Your task to perform on an android device: uninstall "PUBG MOBILE" Image 0: 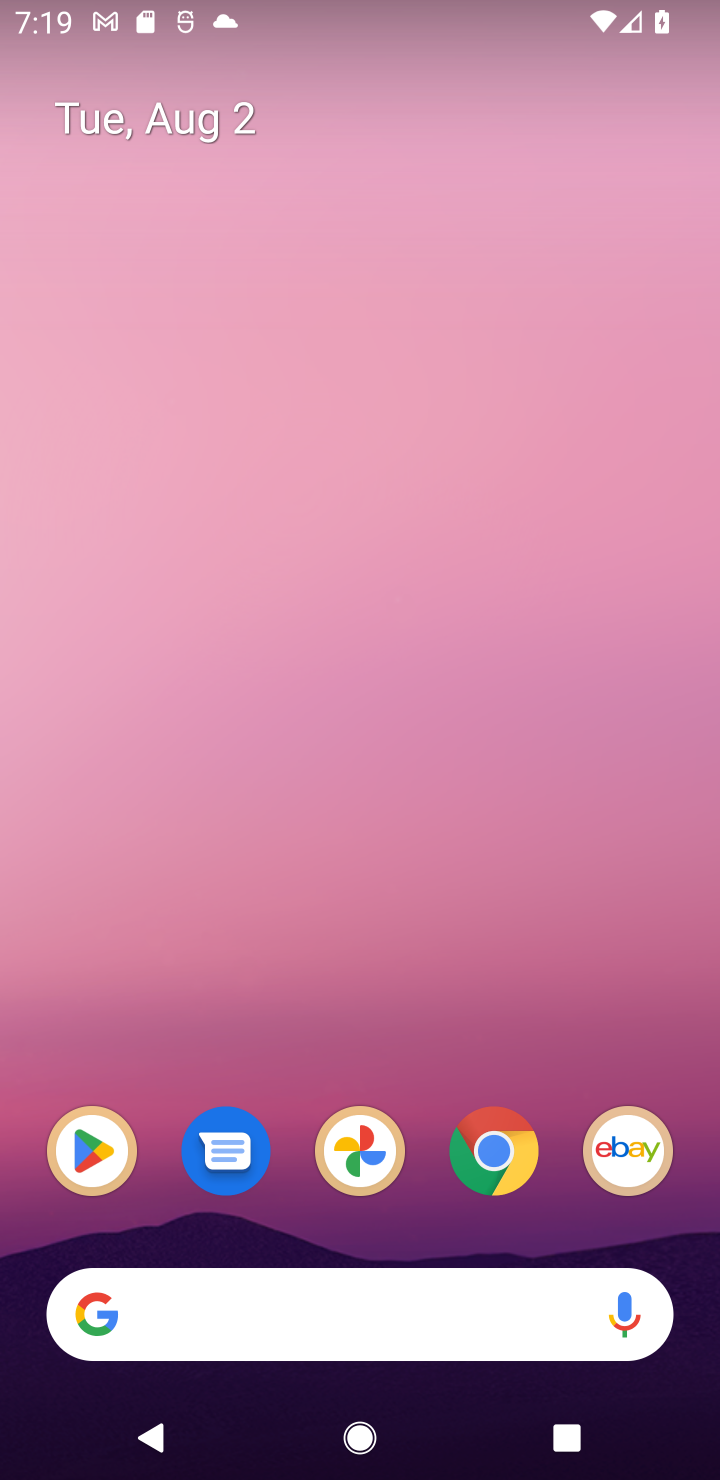
Step 0: click (104, 1150)
Your task to perform on an android device: uninstall "PUBG MOBILE" Image 1: 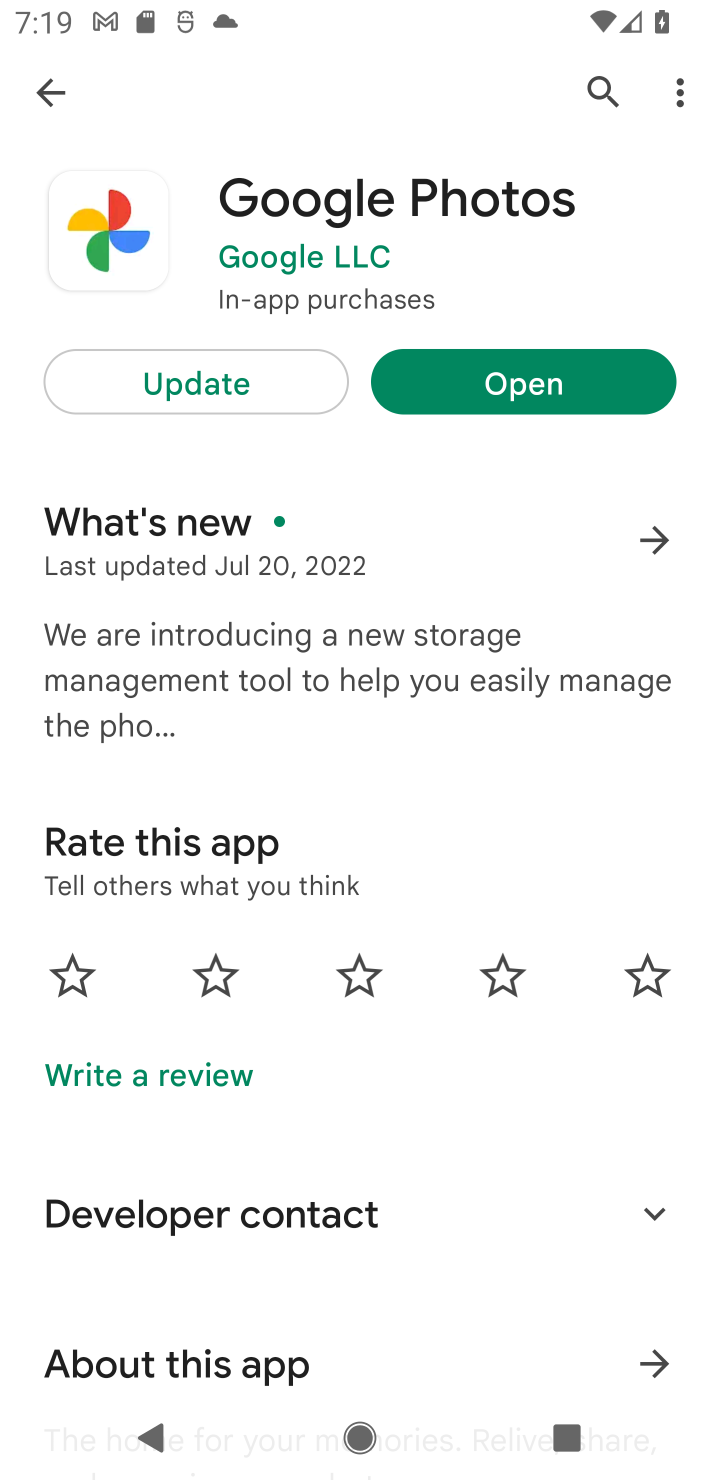
Step 1: click (610, 87)
Your task to perform on an android device: uninstall "PUBG MOBILE" Image 2: 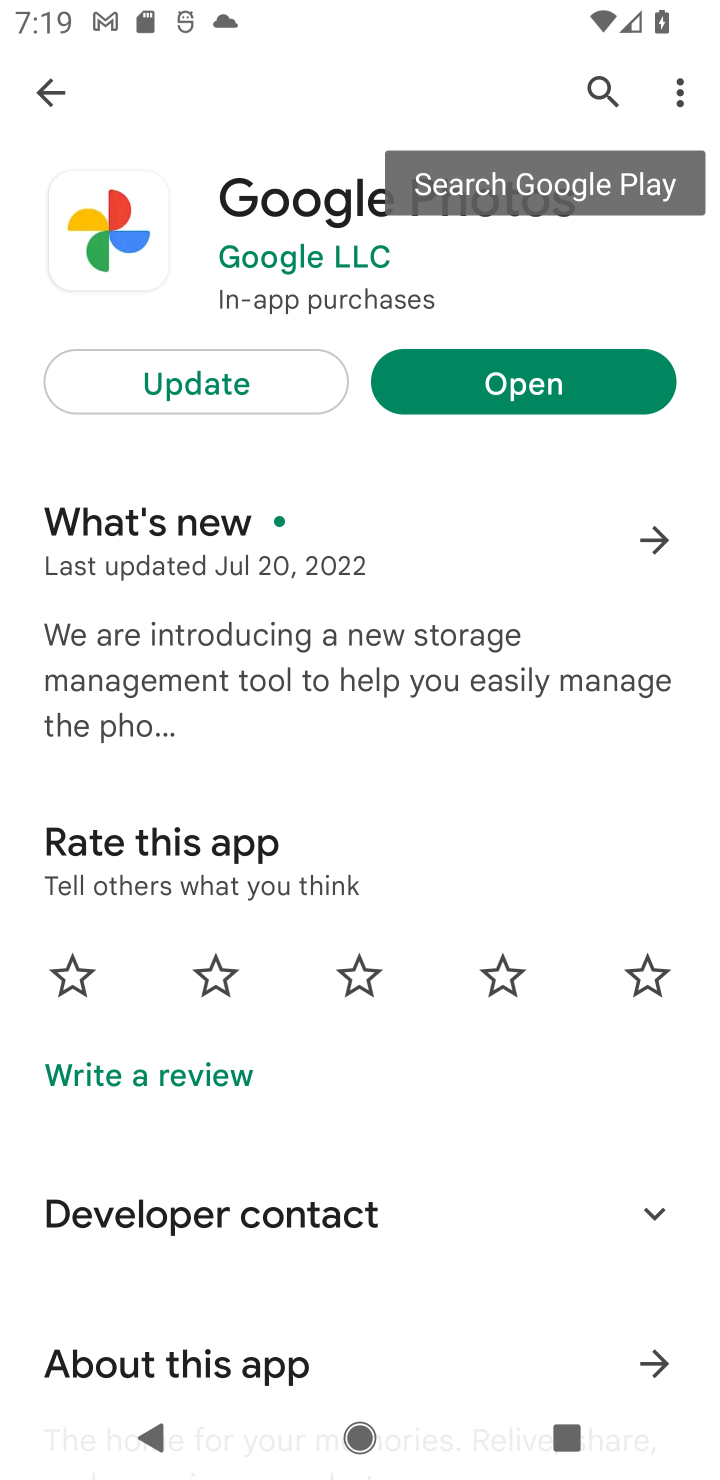
Step 2: click (599, 84)
Your task to perform on an android device: uninstall "PUBG MOBILE" Image 3: 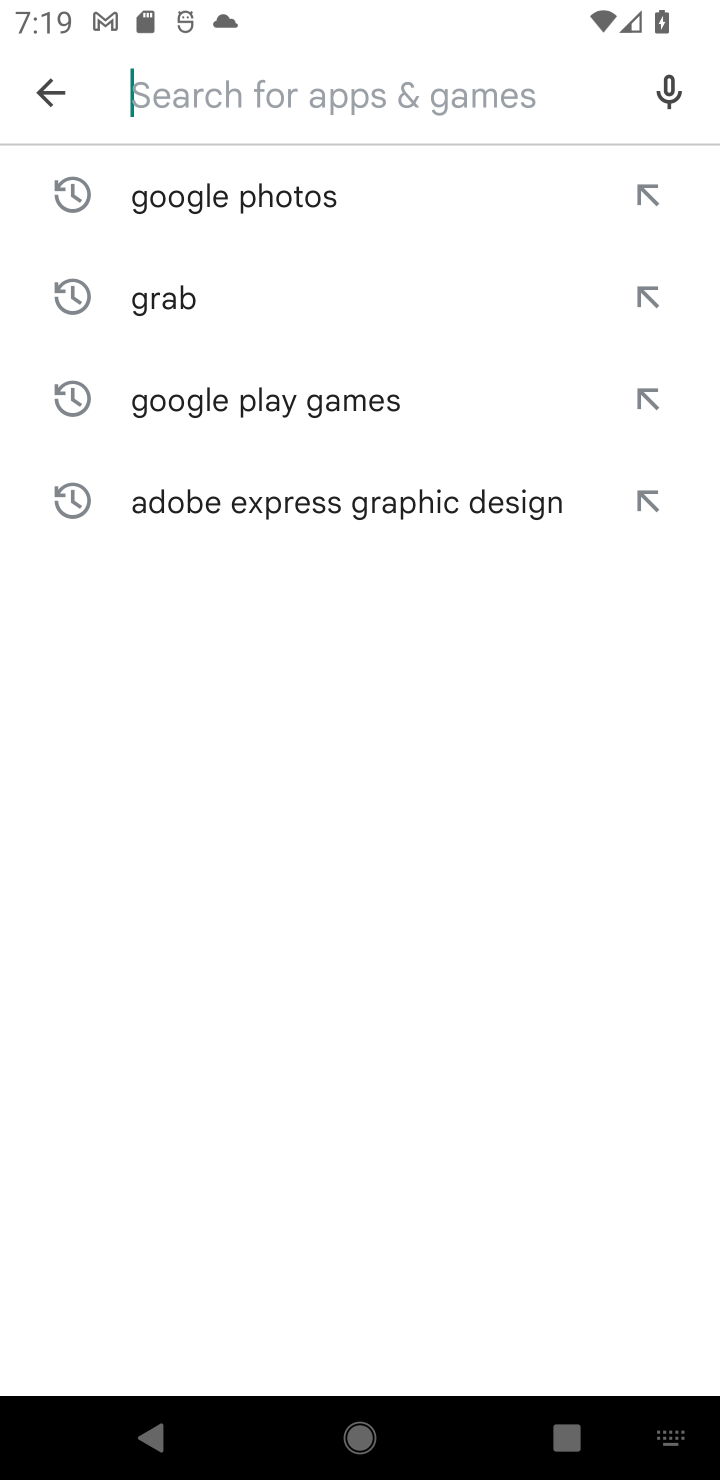
Step 3: type "PUBG MOBILE"
Your task to perform on an android device: uninstall "PUBG MOBILE" Image 4: 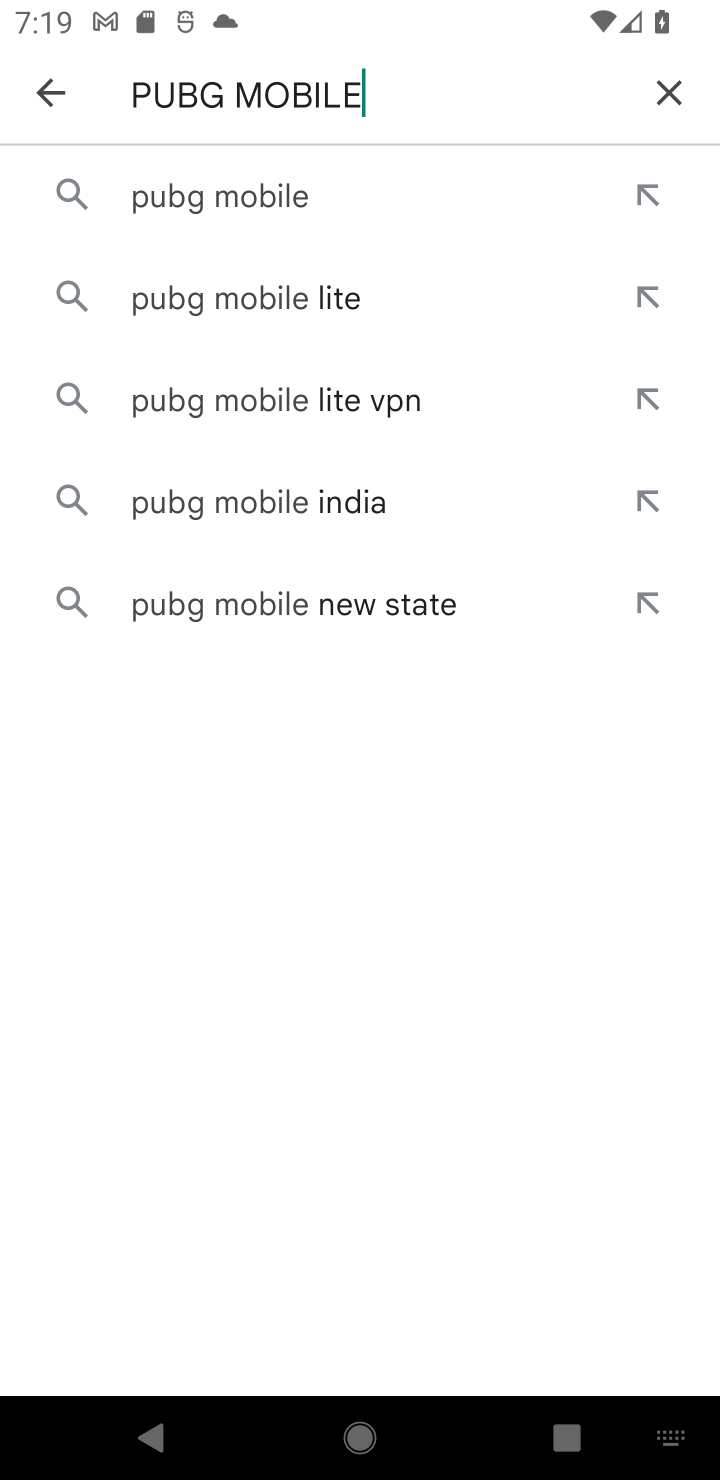
Step 4: click (231, 196)
Your task to perform on an android device: uninstall "PUBG MOBILE" Image 5: 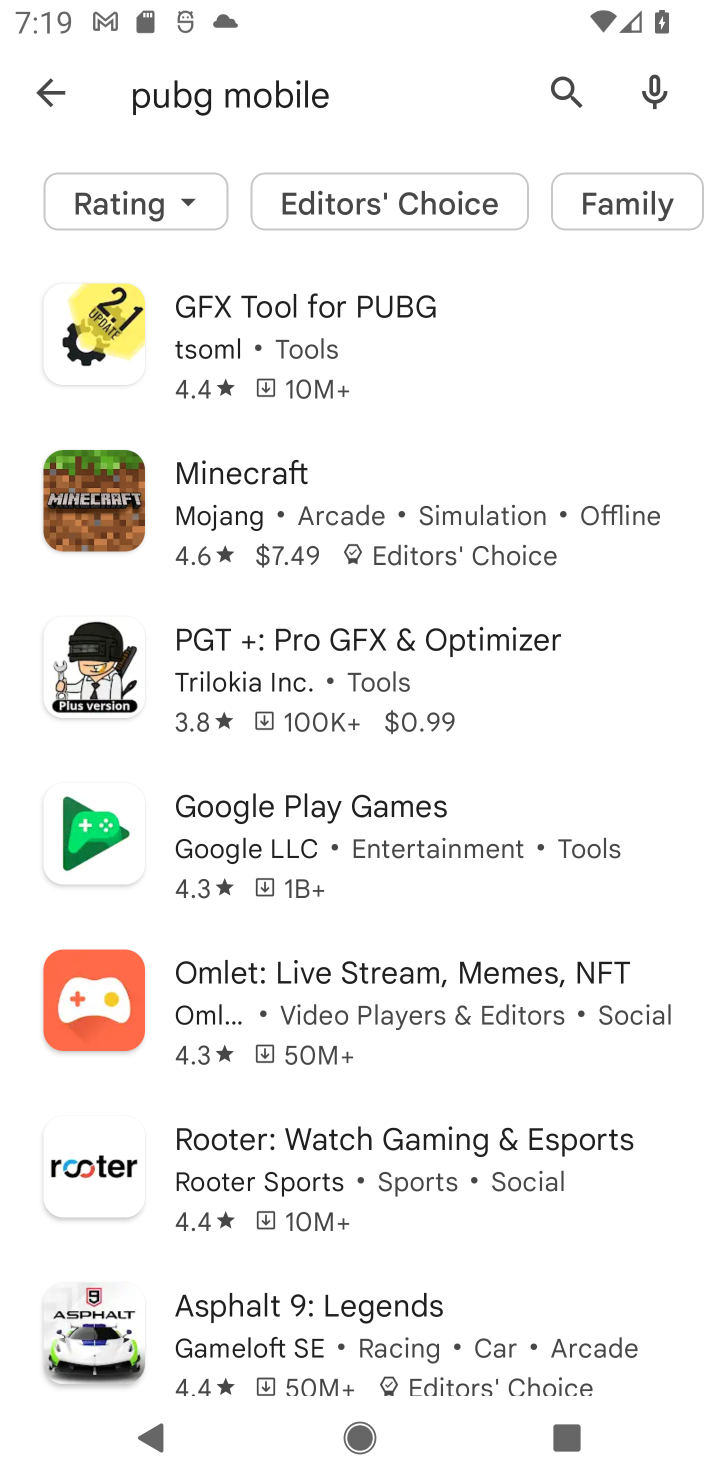
Step 5: task complete